Your task to perform on an android device: What's the news in Guyana? Image 0: 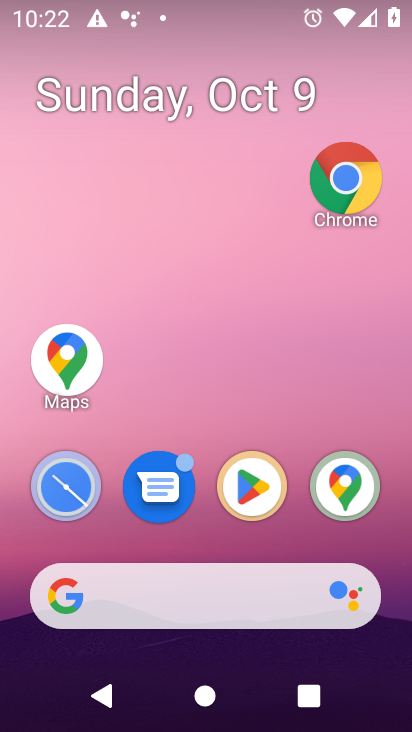
Step 0: drag from (205, 658) to (219, 379)
Your task to perform on an android device: What's the news in Guyana? Image 1: 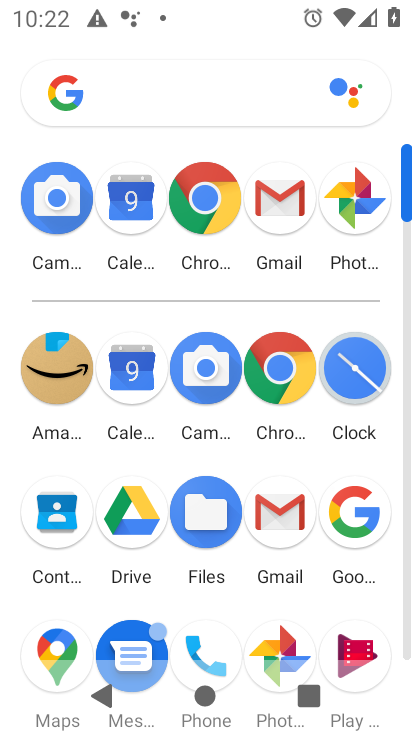
Step 1: drag from (270, 498) to (302, 163)
Your task to perform on an android device: What's the news in Guyana? Image 2: 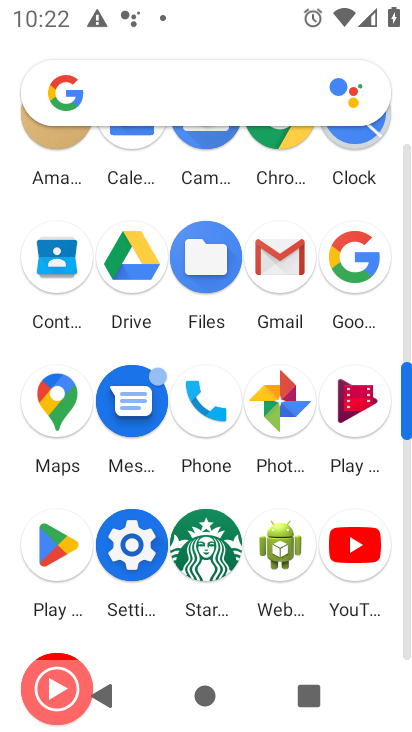
Step 2: drag from (289, 420) to (306, 240)
Your task to perform on an android device: What's the news in Guyana? Image 3: 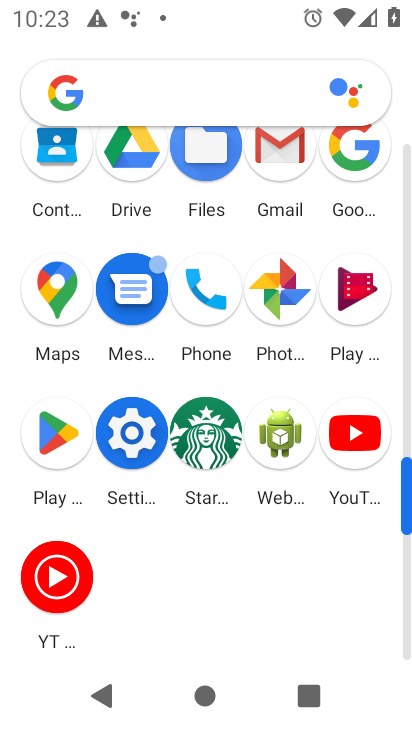
Step 3: click (360, 185)
Your task to perform on an android device: What's the news in Guyana? Image 4: 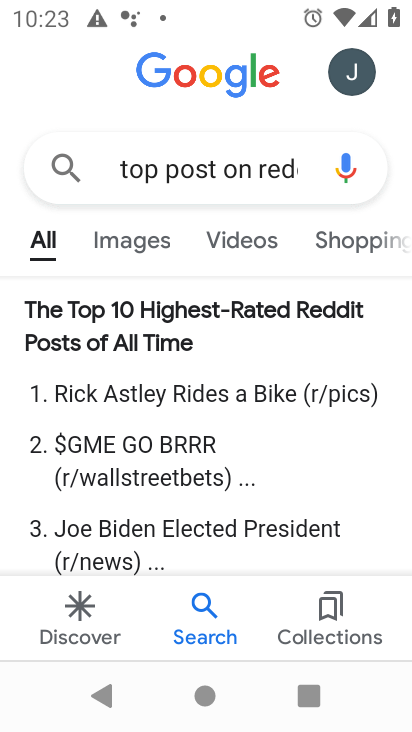
Step 4: click (294, 168)
Your task to perform on an android device: What's the news in Guyana? Image 5: 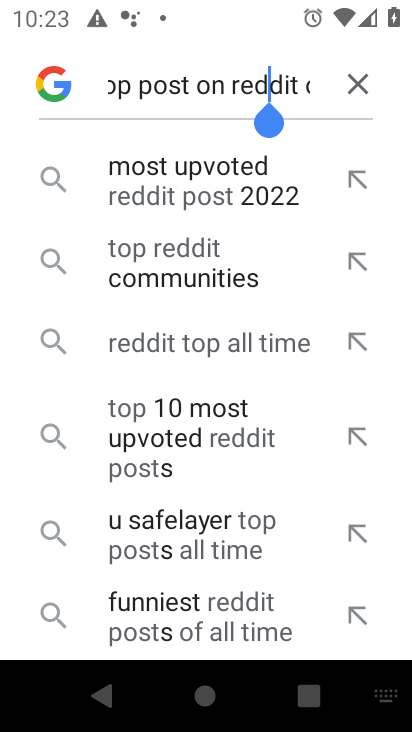
Step 5: click (364, 72)
Your task to perform on an android device: What's the news in Guyana? Image 6: 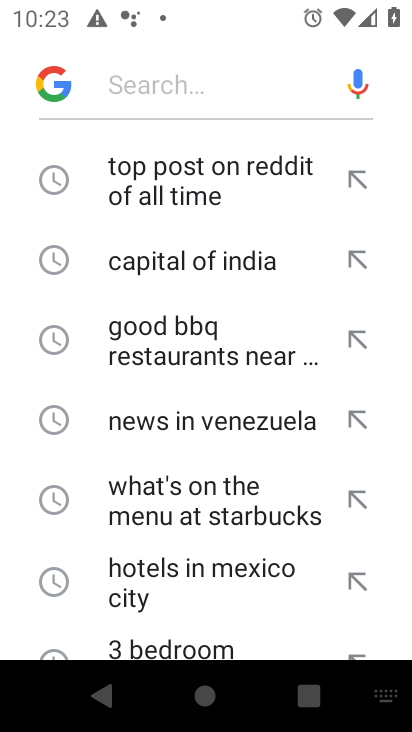
Step 6: type "news in Guyana"
Your task to perform on an android device: What's the news in Guyana? Image 7: 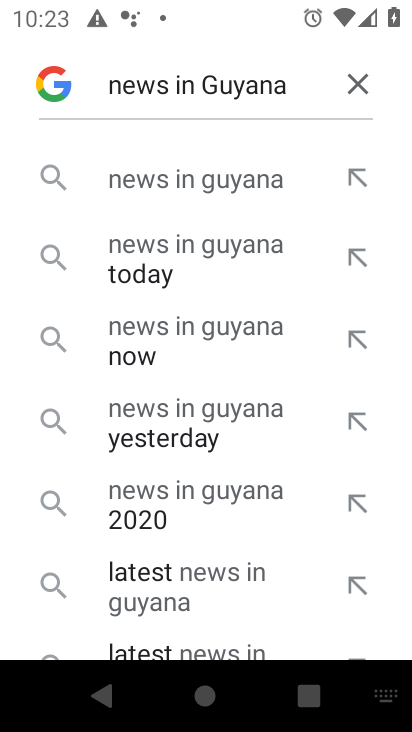
Step 7: click (247, 189)
Your task to perform on an android device: What's the news in Guyana? Image 8: 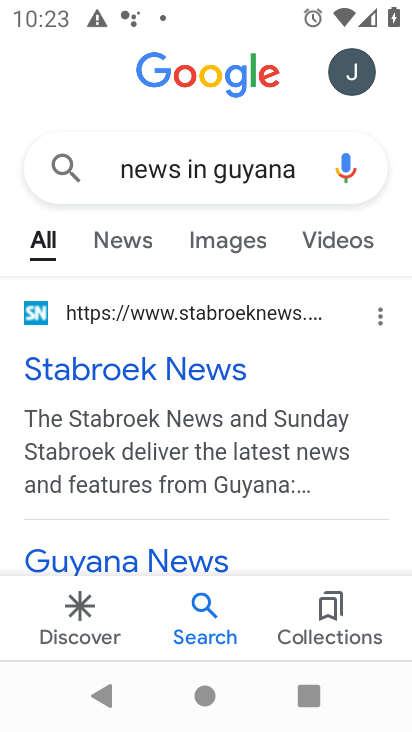
Step 8: click (126, 249)
Your task to perform on an android device: What's the news in Guyana? Image 9: 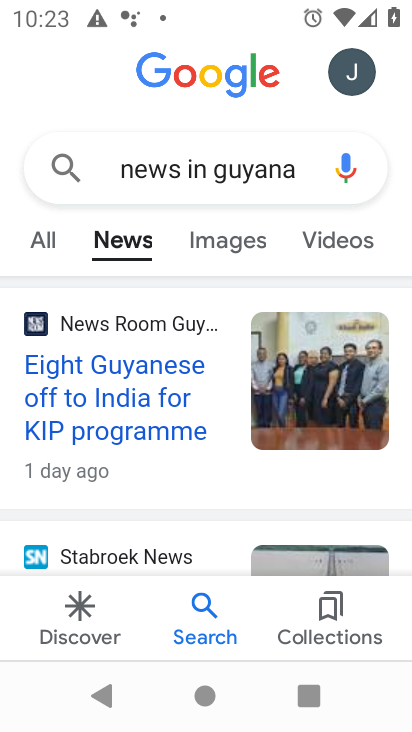
Step 9: task complete